Your task to perform on an android device: Set an alarm for 6am Image 0: 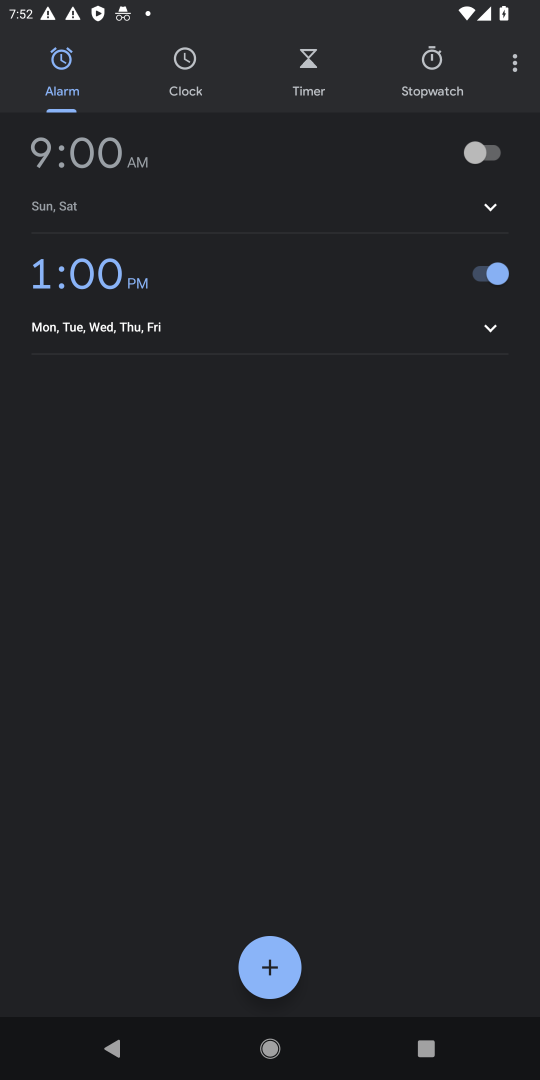
Step 0: press home button
Your task to perform on an android device: Set an alarm for 6am Image 1: 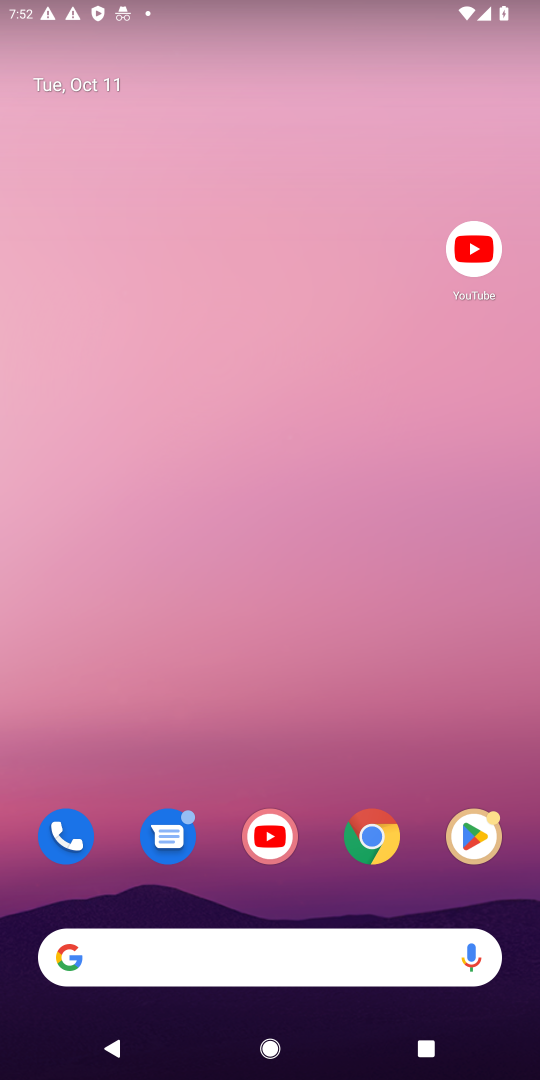
Step 1: drag from (279, 957) to (363, 108)
Your task to perform on an android device: Set an alarm for 6am Image 2: 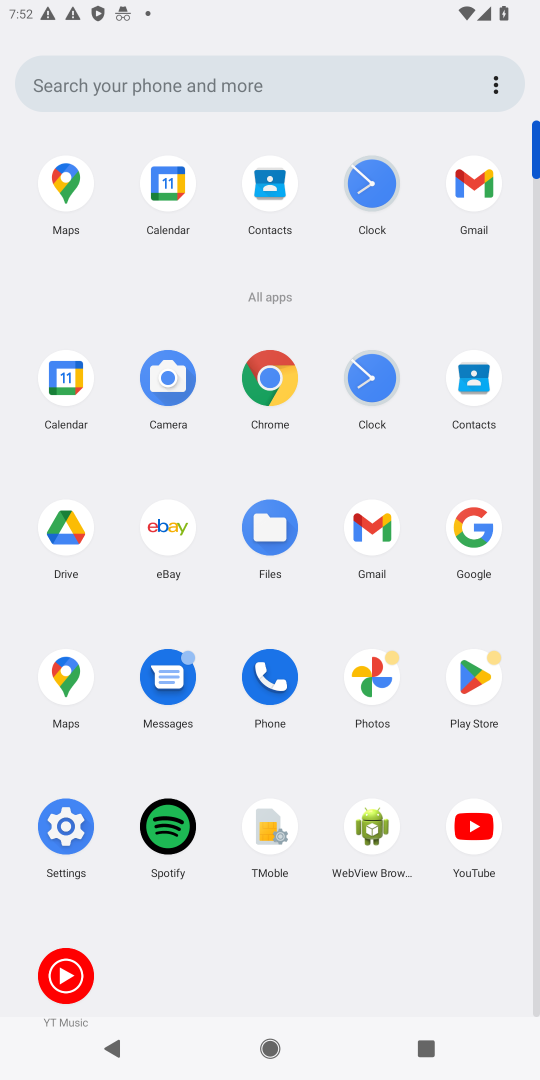
Step 2: click (372, 366)
Your task to perform on an android device: Set an alarm for 6am Image 3: 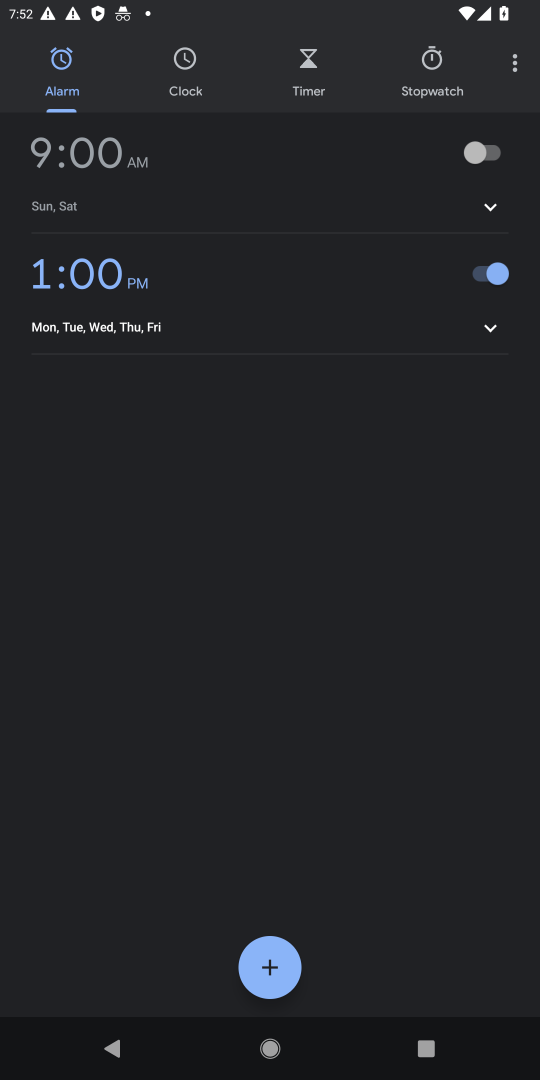
Step 3: click (129, 174)
Your task to perform on an android device: Set an alarm for 6am Image 4: 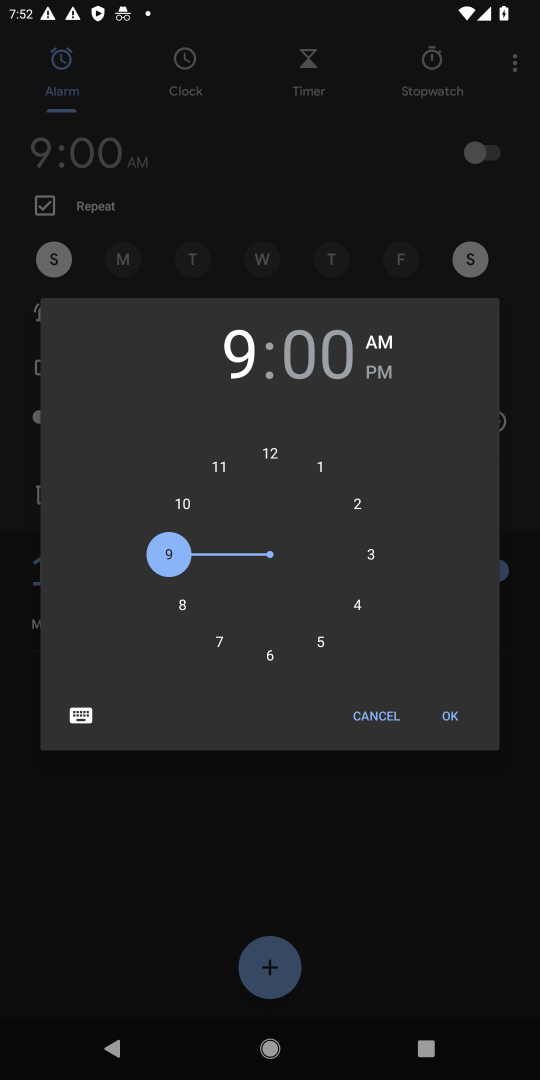
Step 4: click (271, 654)
Your task to perform on an android device: Set an alarm for 6am Image 5: 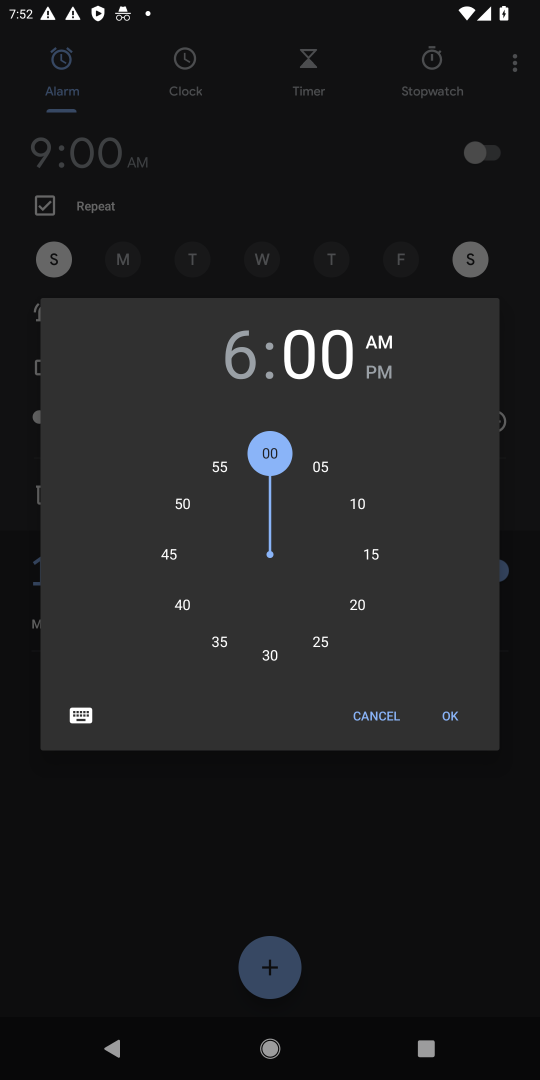
Step 5: click (448, 722)
Your task to perform on an android device: Set an alarm for 6am Image 6: 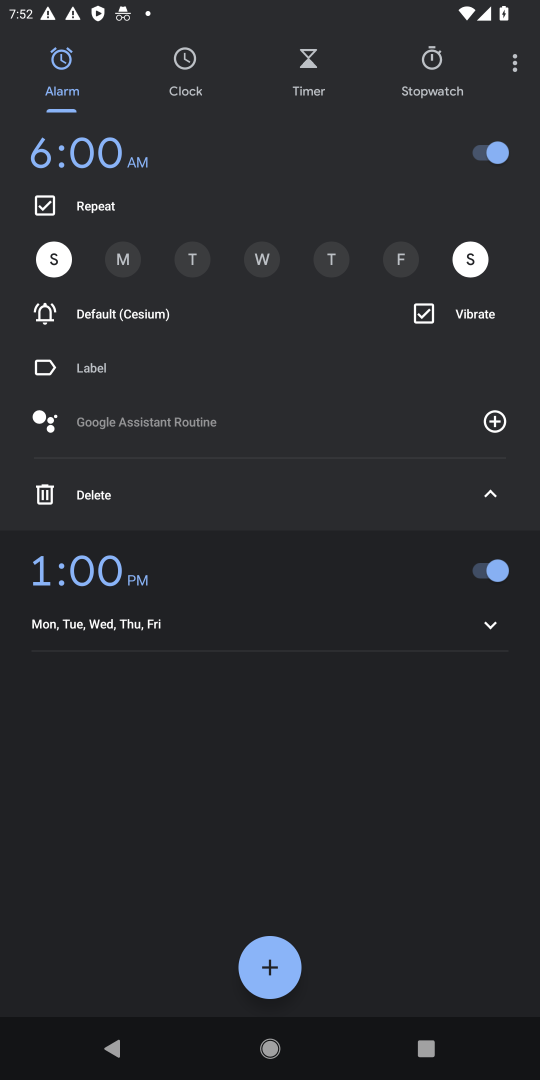
Step 6: task complete